Your task to perform on an android device: Go to Google Image 0: 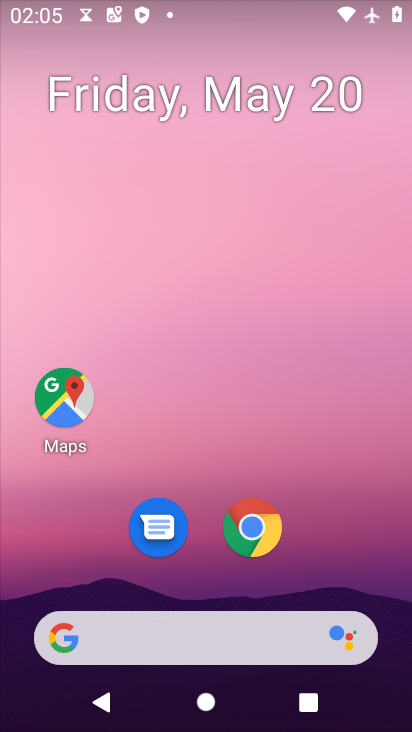
Step 0: press home button
Your task to perform on an android device: Go to Google Image 1: 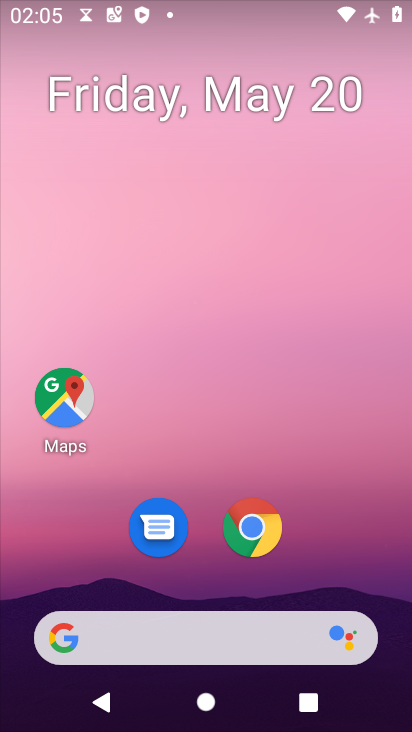
Step 1: drag from (153, 643) to (304, 180)
Your task to perform on an android device: Go to Google Image 2: 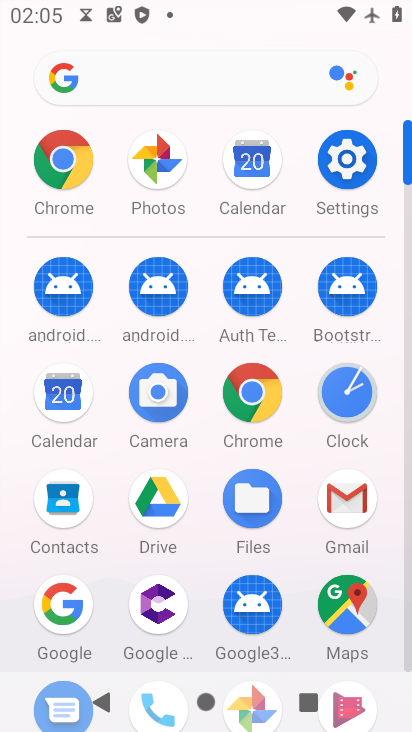
Step 2: click (78, 606)
Your task to perform on an android device: Go to Google Image 3: 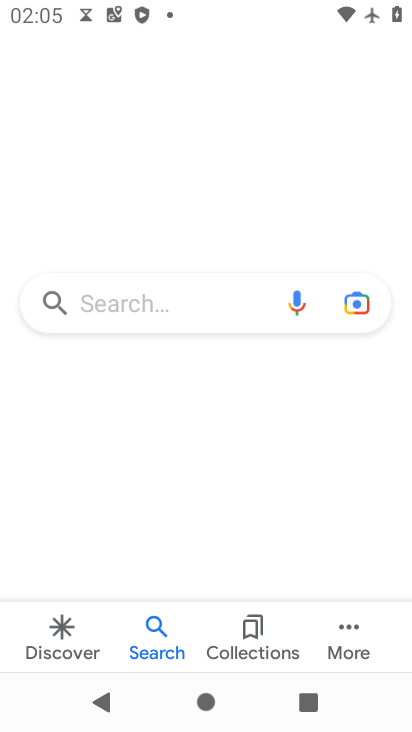
Step 3: task complete